Your task to perform on an android device: Open internet settings Image 0: 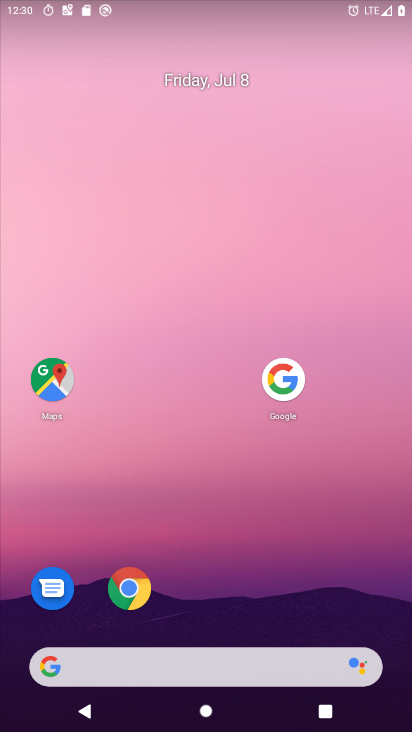
Step 0: press home button
Your task to perform on an android device: Open internet settings Image 1: 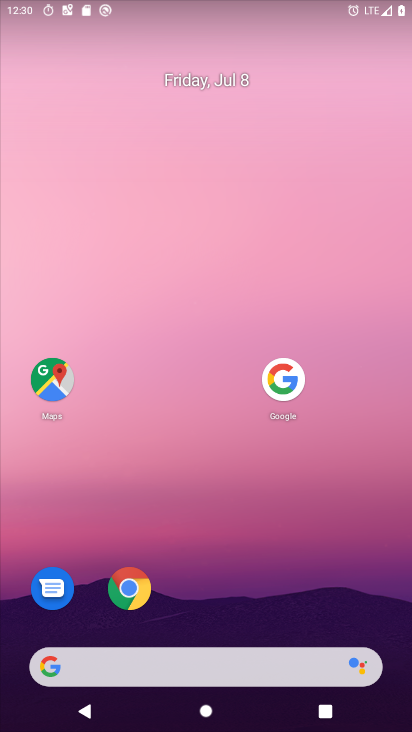
Step 1: drag from (187, 668) to (226, 154)
Your task to perform on an android device: Open internet settings Image 2: 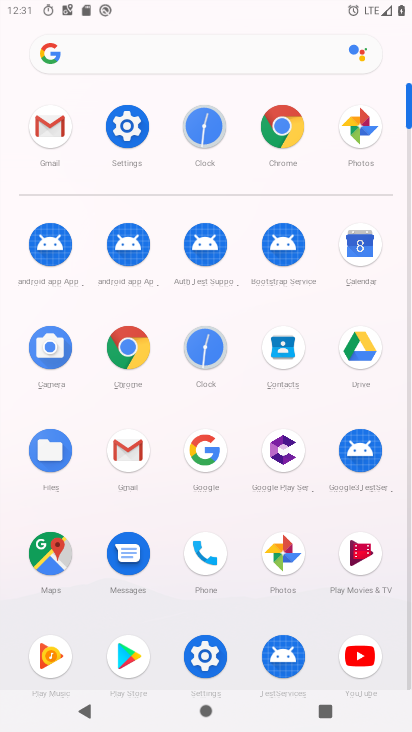
Step 2: click (127, 125)
Your task to perform on an android device: Open internet settings Image 3: 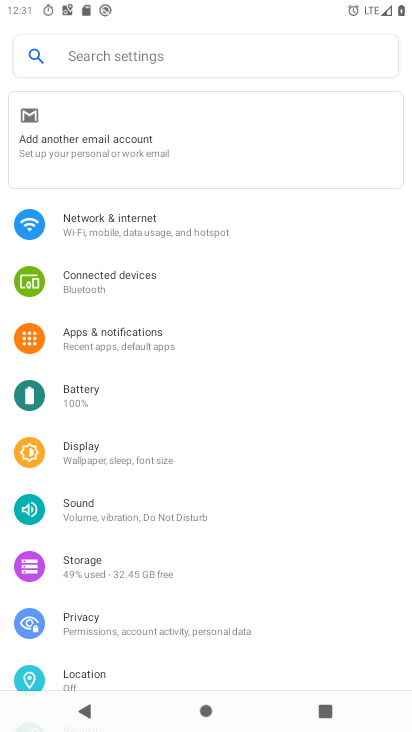
Step 3: click (136, 213)
Your task to perform on an android device: Open internet settings Image 4: 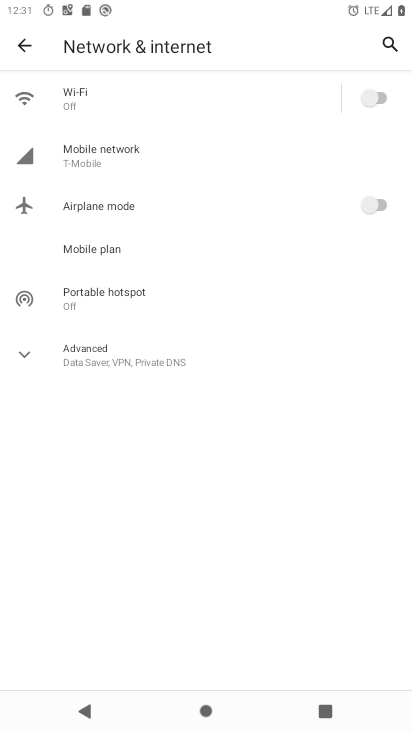
Step 4: task complete